Your task to perform on an android device: Go to Wikipedia Image 0: 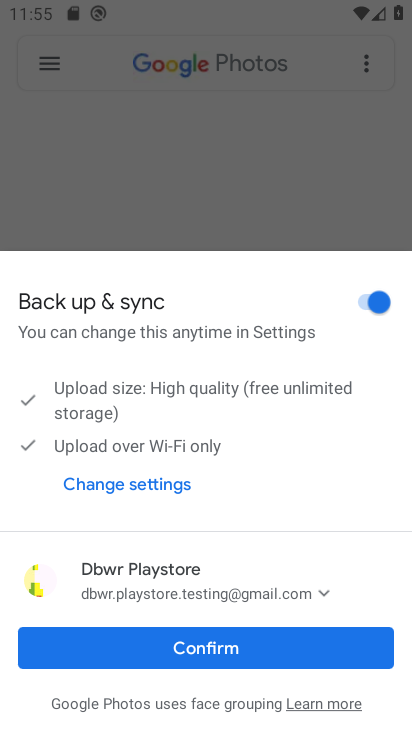
Step 0: click (245, 650)
Your task to perform on an android device: Go to Wikipedia Image 1: 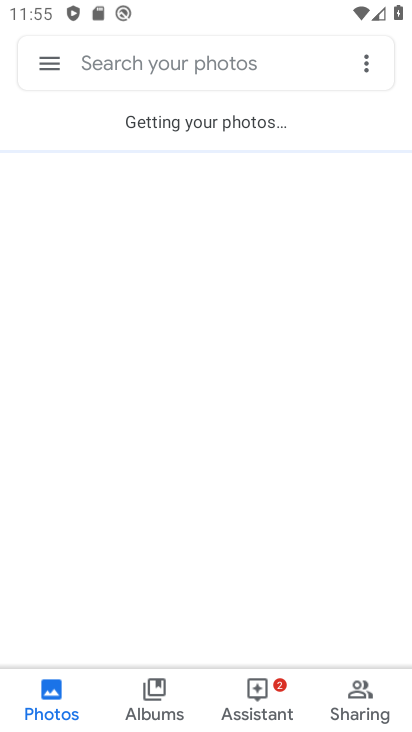
Step 1: press back button
Your task to perform on an android device: Go to Wikipedia Image 2: 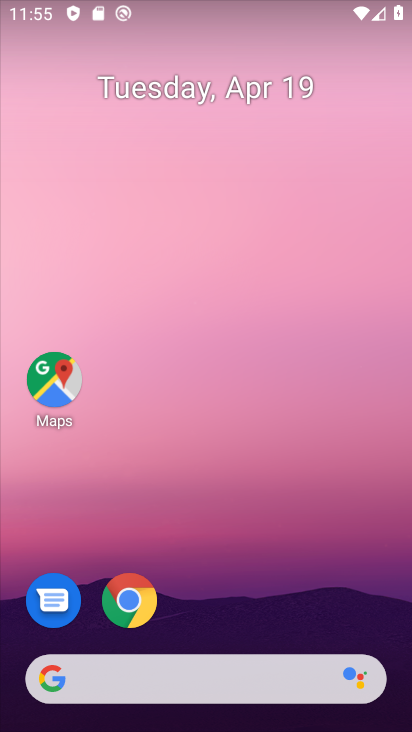
Step 2: drag from (211, 276) to (4, 49)
Your task to perform on an android device: Go to Wikipedia Image 3: 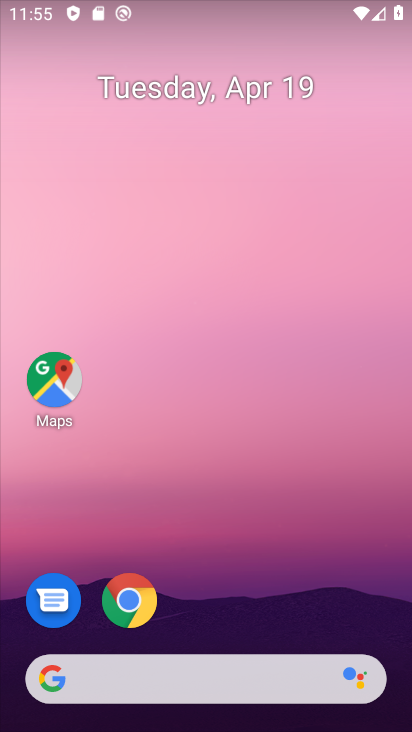
Step 3: drag from (391, 651) to (259, 90)
Your task to perform on an android device: Go to Wikipedia Image 4: 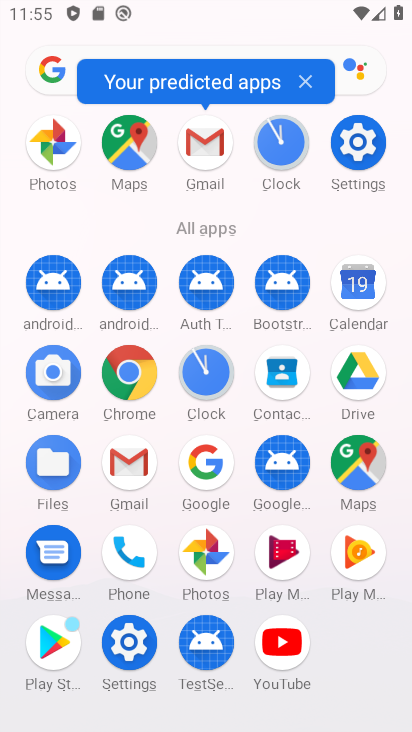
Step 4: drag from (4, 478) to (1, 211)
Your task to perform on an android device: Go to Wikipedia Image 5: 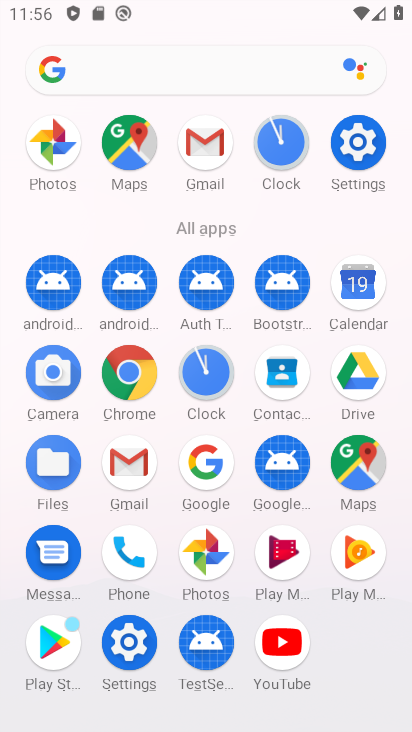
Step 5: click (128, 370)
Your task to perform on an android device: Go to Wikipedia Image 6: 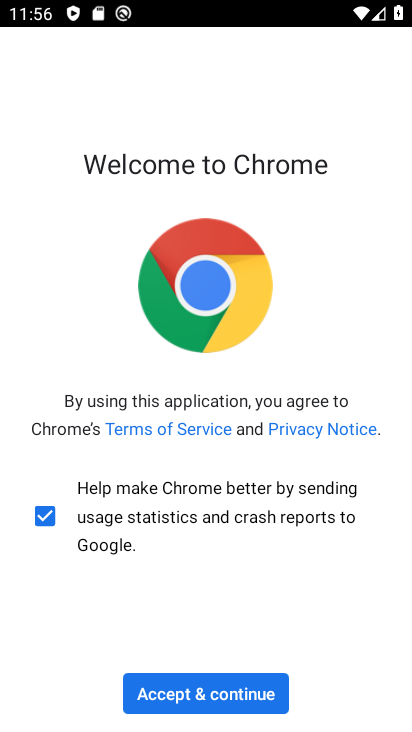
Step 6: click (228, 686)
Your task to perform on an android device: Go to Wikipedia Image 7: 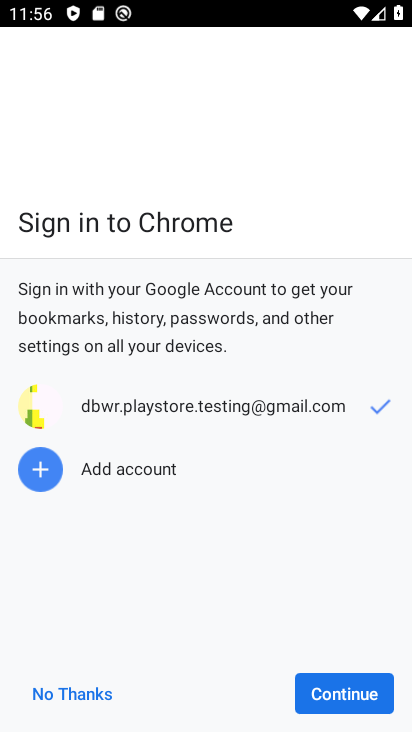
Step 7: click (343, 683)
Your task to perform on an android device: Go to Wikipedia Image 8: 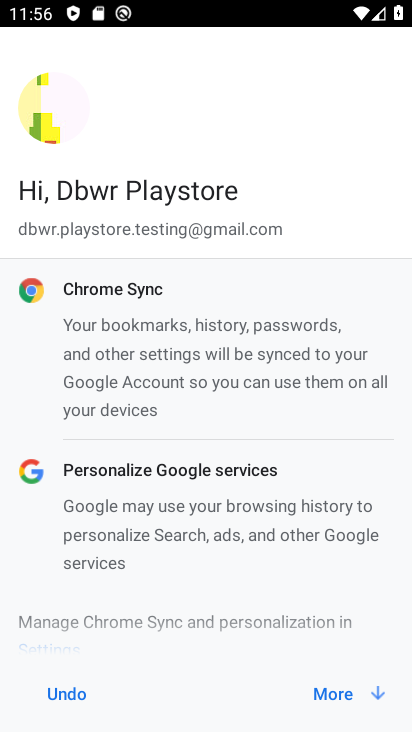
Step 8: click (348, 698)
Your task to perform on an android device: Go to Wikipedia Image 9: 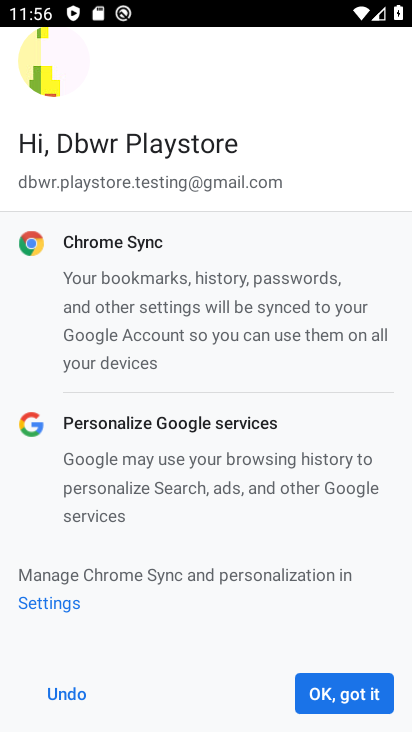
Step 9: click (348, 698)
Your task to perform on an android device: Go to Wikipedia Image 10: 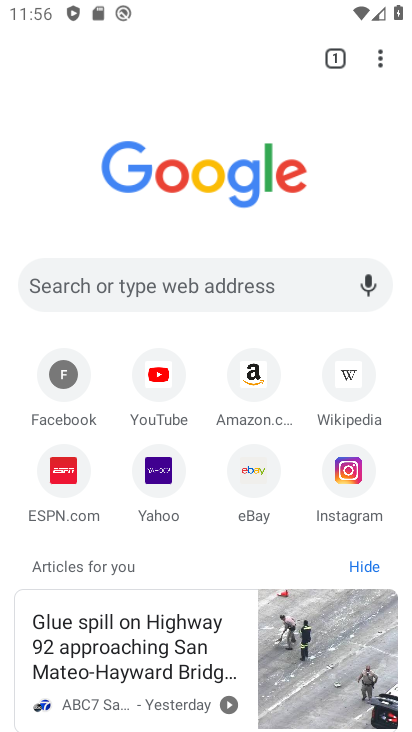
Step 10: click (353, 374)
Your task to perform on an android device: Go to Wikipedia Image 11: 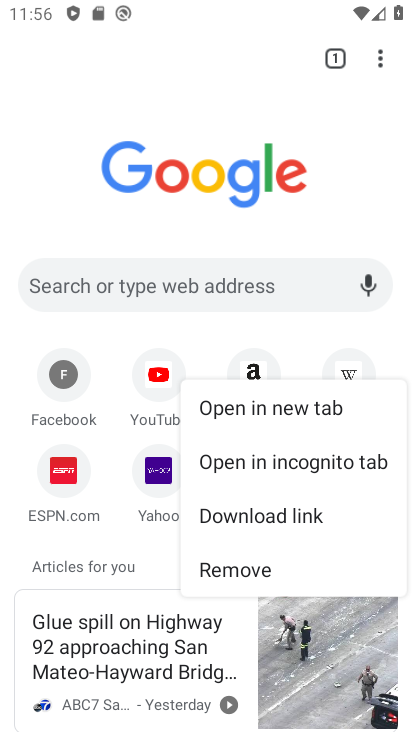
Step 11: click (352, 366)
Your task to perform on an android device: Go to Wikipedia Image 12: 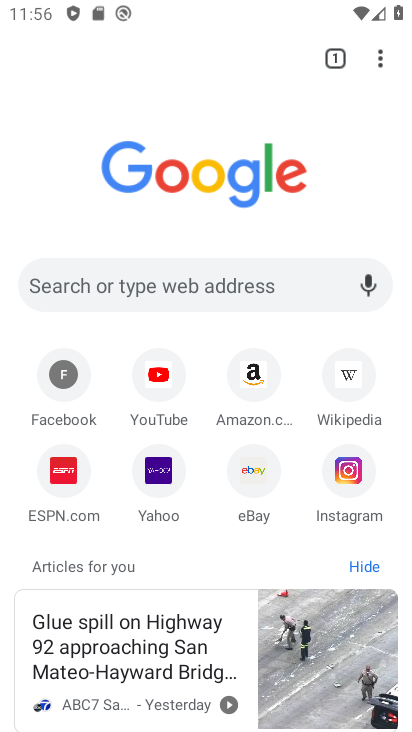
Step 12: click (352, 372)
Your task to perform on an android device: Go to Wikipedia Image 13: 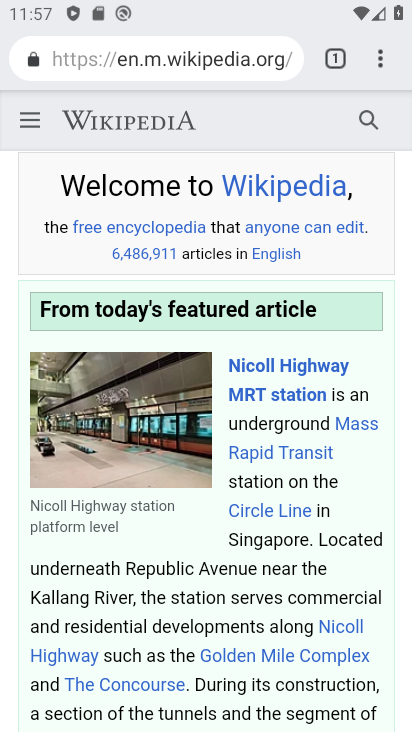
Step 13: task complete